Your task to perform on an android device: check out phone information Image 0: 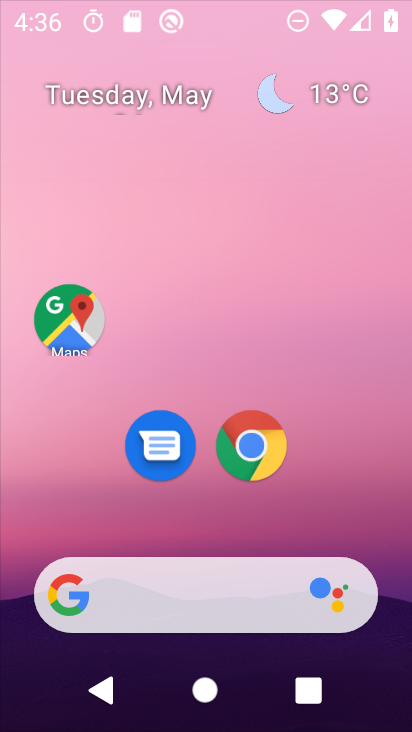
Step 0: press home button
Your task to perform on an android device: check out phone information Image 1: 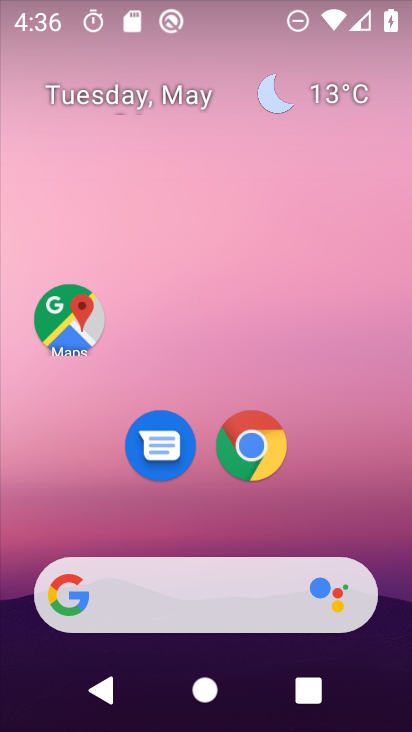
Step 1: drag from (211, 533) to (216, 23)
Your task to perform on an android device: check out phone information Image 2: 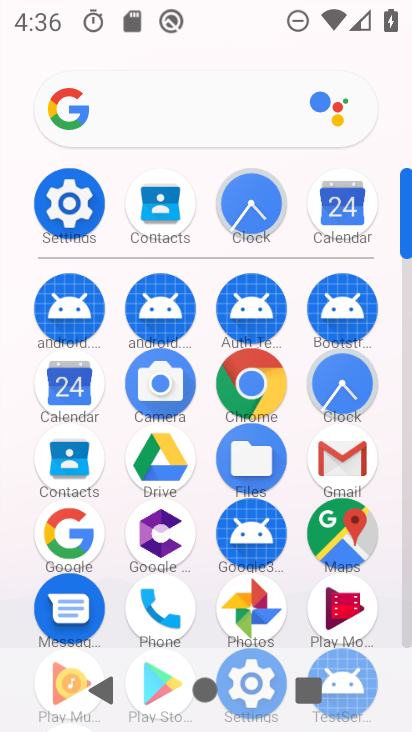
Step 2: click (66, 198)
Your task to perform on an android device: check out phone information Image 3: 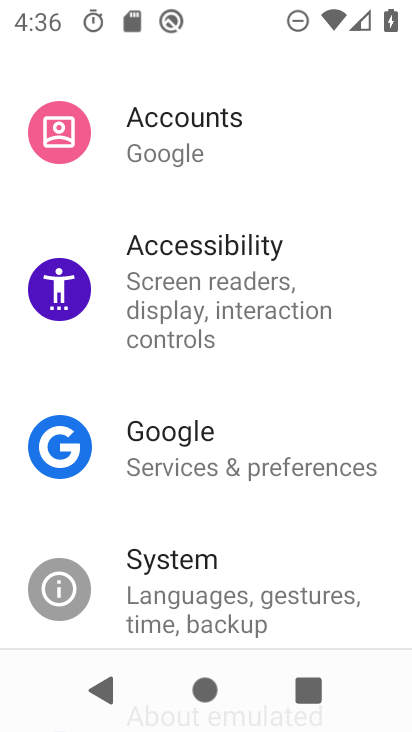
Step 3: drag from (256, 601) to (265, 130)
Your task to perform on an android device: check out phone information Image 4: 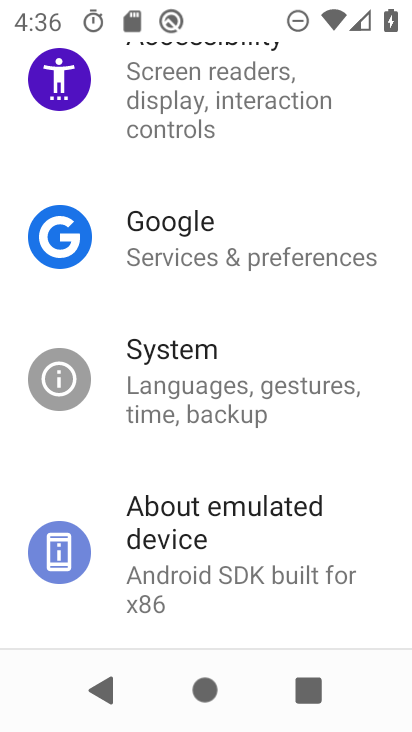
Step 4: click (248, 531)
Your task to perform on an android device: check out phone information Image 5: 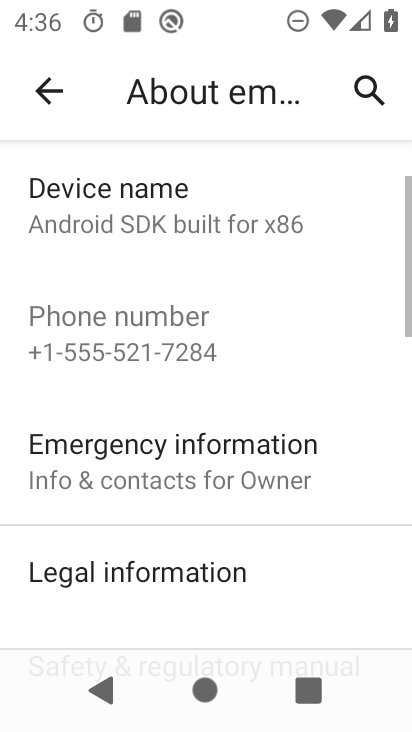
Step 5: task complete